Your task to perform on an android device: Is it going to rain this weekend? Image 0: 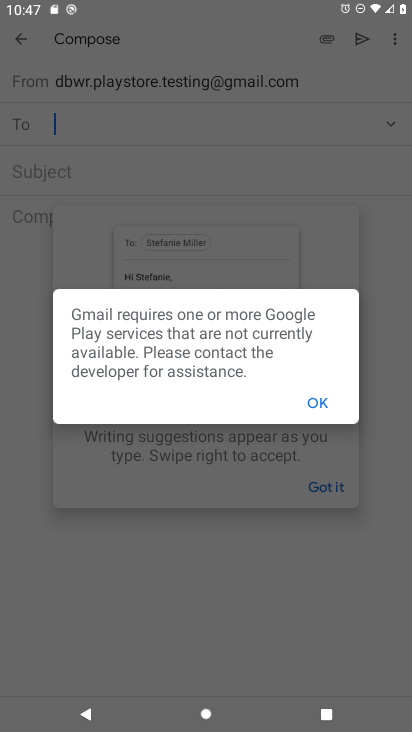
Step 0: press home button
Your task to perform on an android device: Is it going to rain this weekend? Image 1: 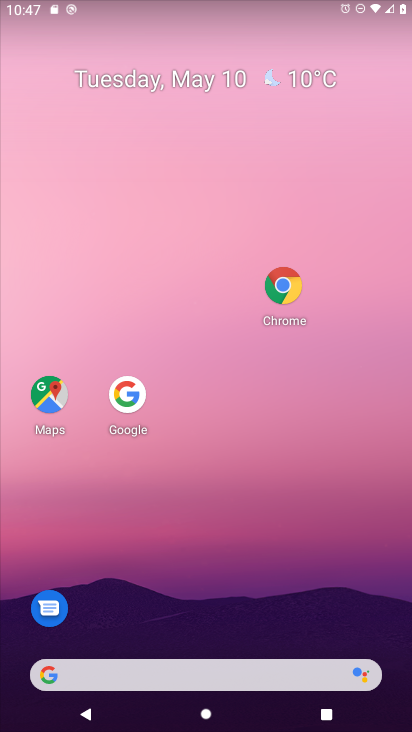
Step 1: click (304, 80)
Your task to perform on an android device: Is it going to rain this weekend? Image 2: 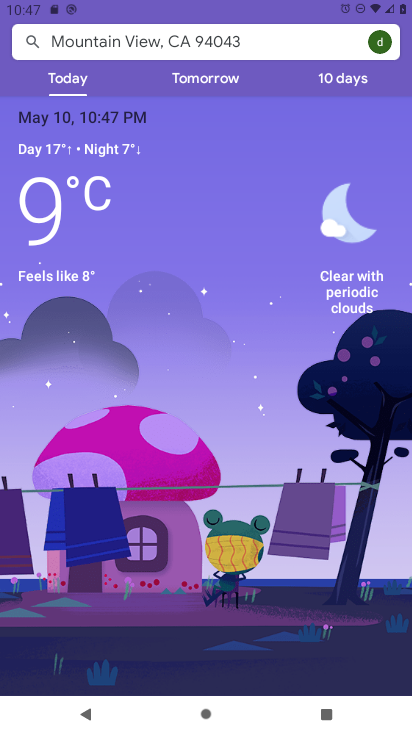
Step 2: click (348, 76)
Your task to perform on an android device: Is it going to rain this weekend? Image 3: 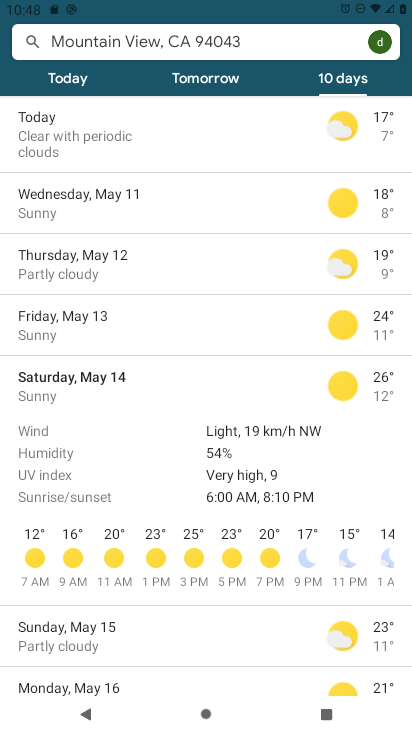
Step 3: task complete